Your task to perform on an android device: Show me productivity apps on the Play Store Image 0: 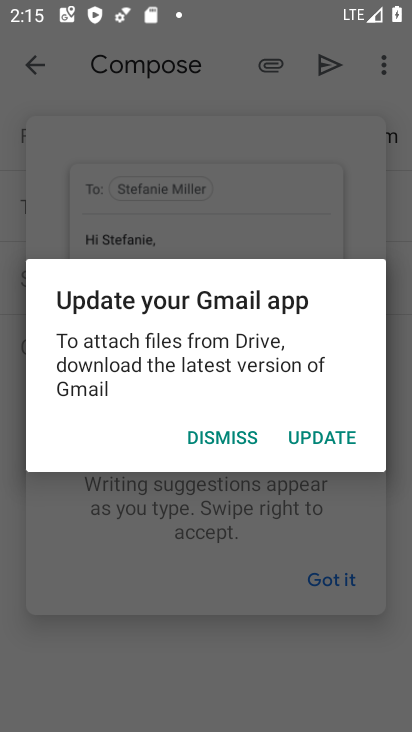
Step 0: press home button
Your task to perform on an android device: Show me productivity apps on the Play Store Image 1: 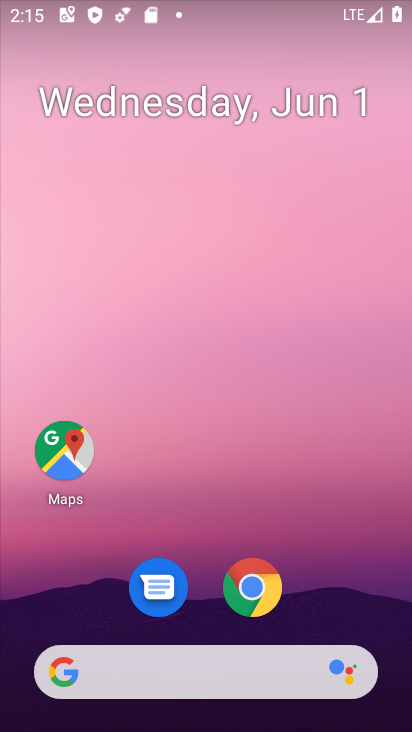
Step 1: drag from (208, 667) to (207, 230)
Your task to perform on an android device: Show me productivity apps on the Play Store Image 2: 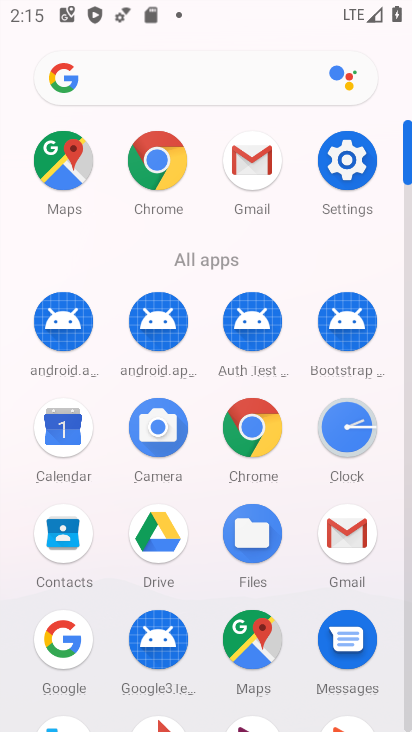
Step 2: drag from (214, 596) to (208, 180)
Your task to perform on an android device: Show me productivity apps on the Play Store Image 3: 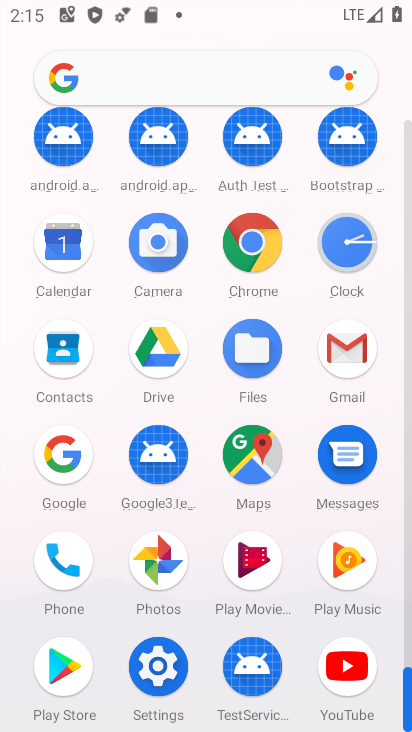
Step 3: click (76, 662)
Your task to perform on an android device: Show me productivity apps on the Play Store Image 4: 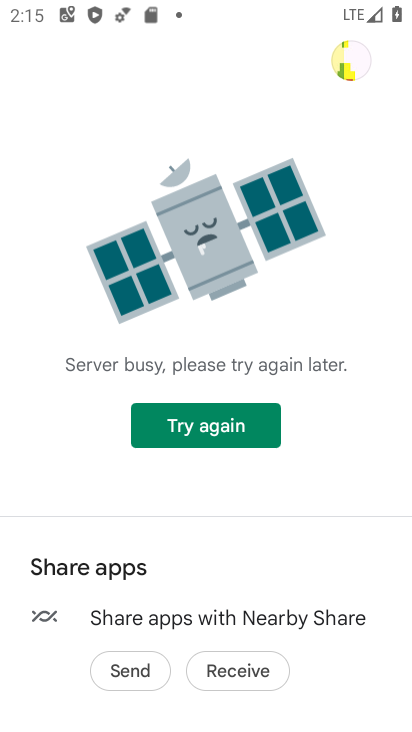
Step 4: task complete